Your task to perform on an android device: Open Amazon Image 0: 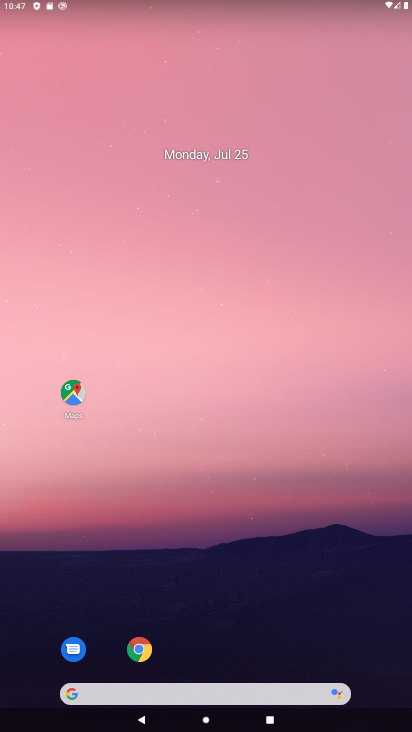
Step 0: click (143, 651)
Your task to perform on an android device: Open Amazon Image 1: 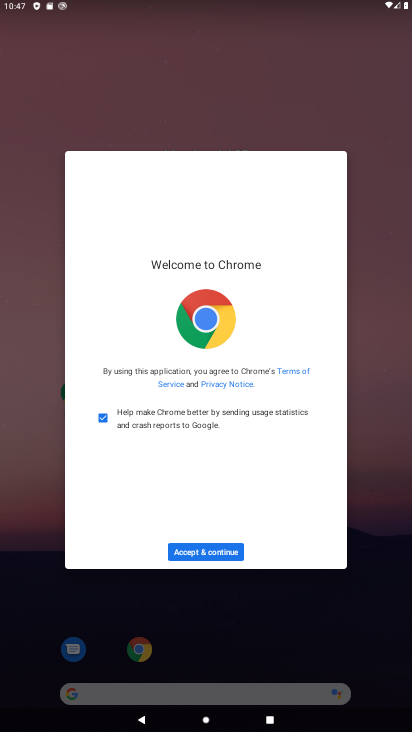
Step 1: click (197, 555)
Your task to perform on an android device: Open Amazon Image 2: 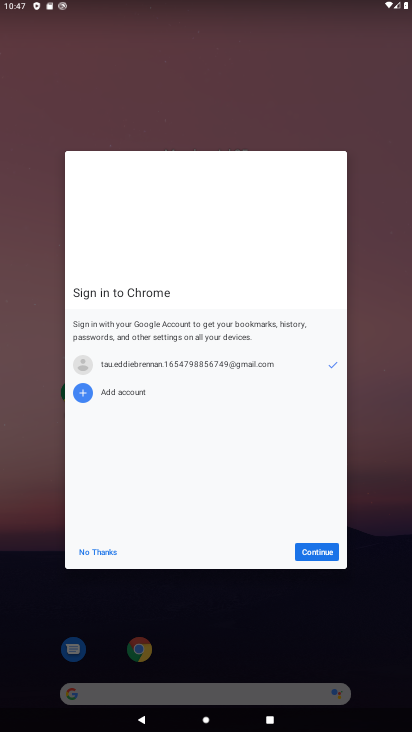
Step 2: click (98, 556)
Your task to perform on an android device: Open Amazon Image 3: 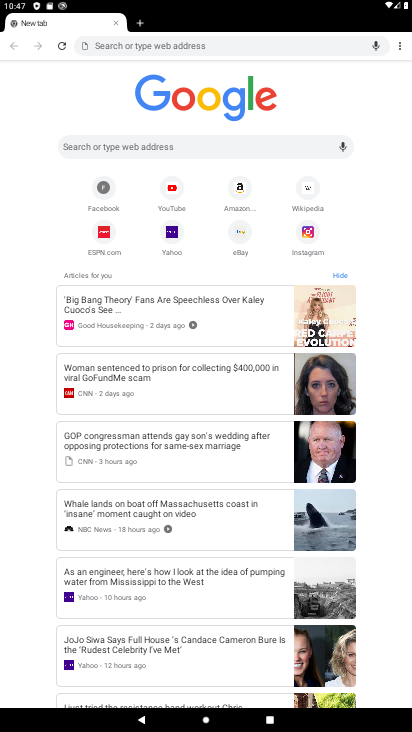
Step 3: click (239, 192)
Your task to perform on an android device: Open Amazon Image 4: 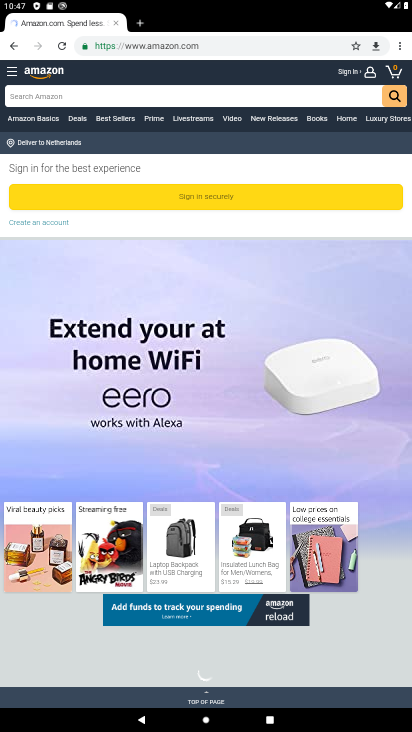
Step 4: task complete